Your task to perform on an android device: Open Google Maps and go to "Timeline" Image 0: 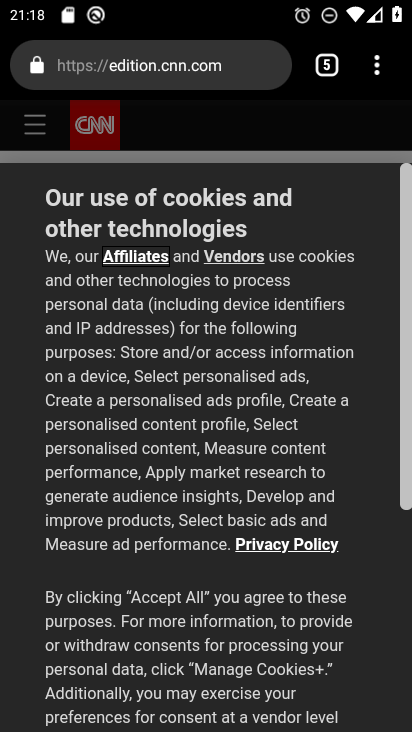
Step 0: press home button
Your task to perform on an android device: Open Google Maps and go to "Timeline" Image 1: 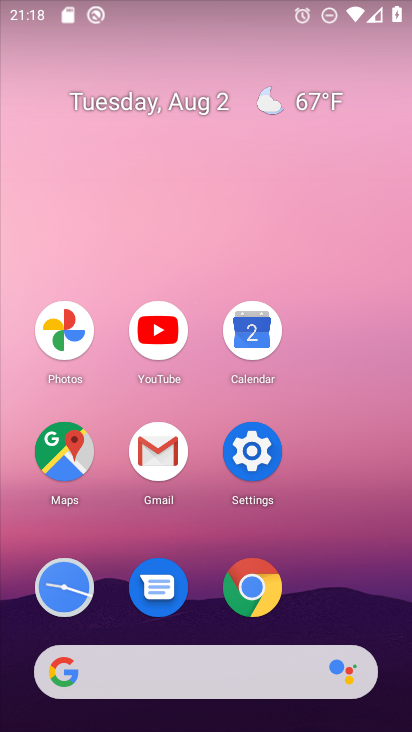
Step 1: click (62, 458)
Your task to perform on an android device: Open Google Maps and go to "Timeline" Image 2: 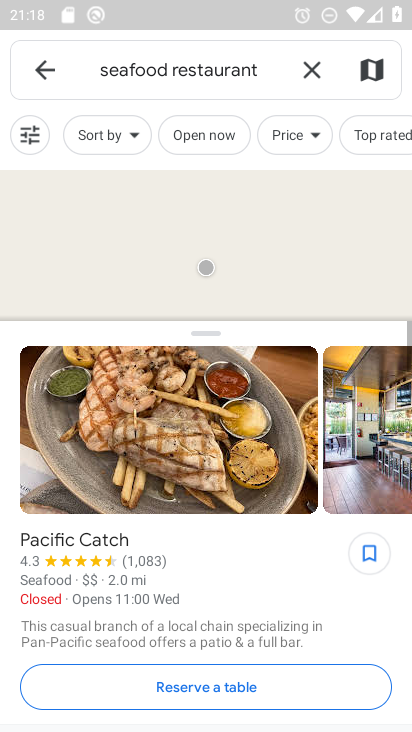
Step 2: click (36, 67)
Your task to perform on an android device: Open Google Maps and go to "Timeline" Image 3: 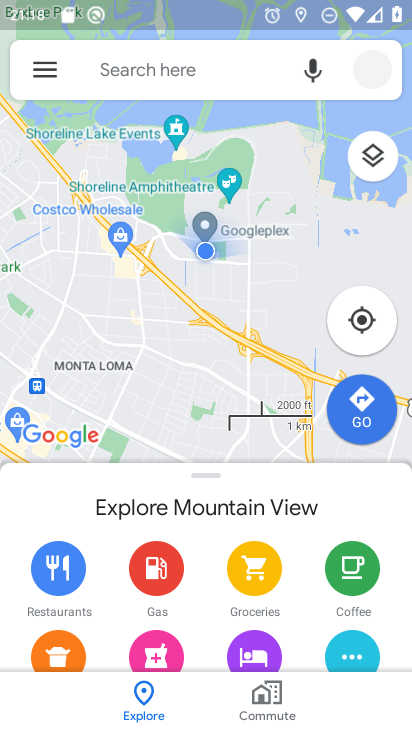
Step 3: click (47, 70)
Your task to perform on an android device: Open Google Maps and go to "Timeline" Image 4: 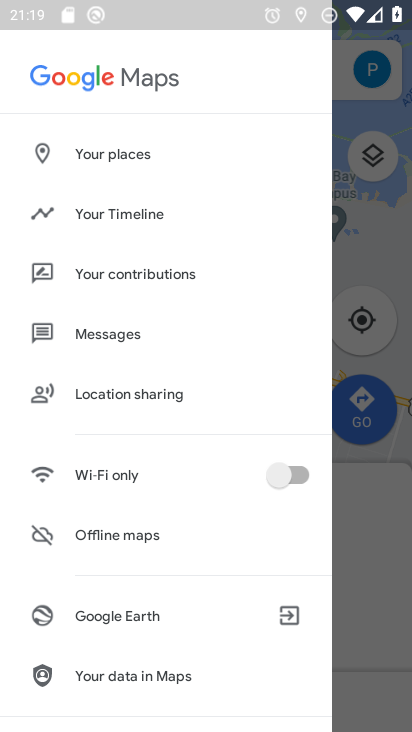
Step 4: click (121, 213)
Your task to perform on an android device: Open Google Maps and go to "Timeline" Image 5: 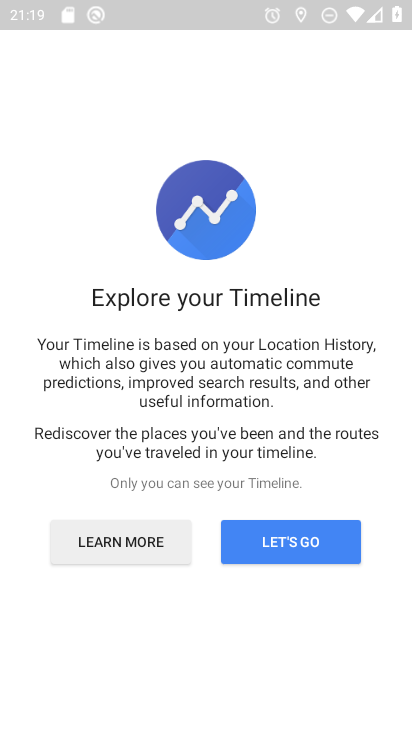
Step 5: click (315, 550)
Your task to perform on an android device: Open Google Maps and go to "Timeline" Image 6: 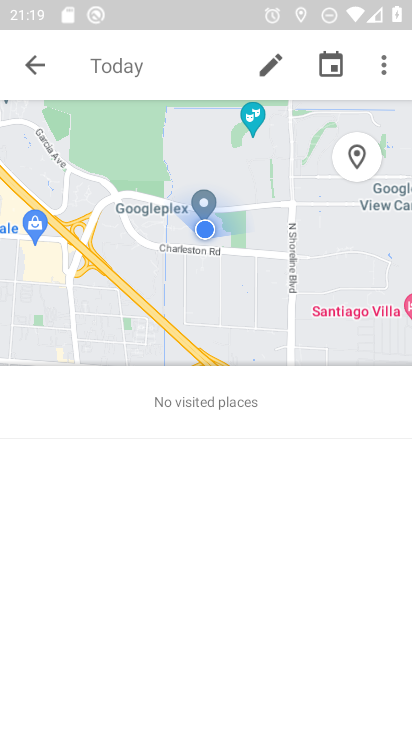
Step 6: task complete